Your task to perform on an android device: check android version Image 0: 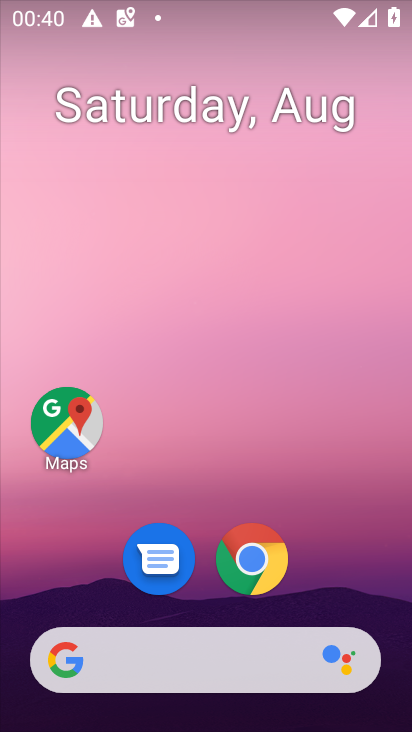
Step 0: drag from (326, 604) to (232, 1)
Your task to perform on an android device: check android version Image 1: 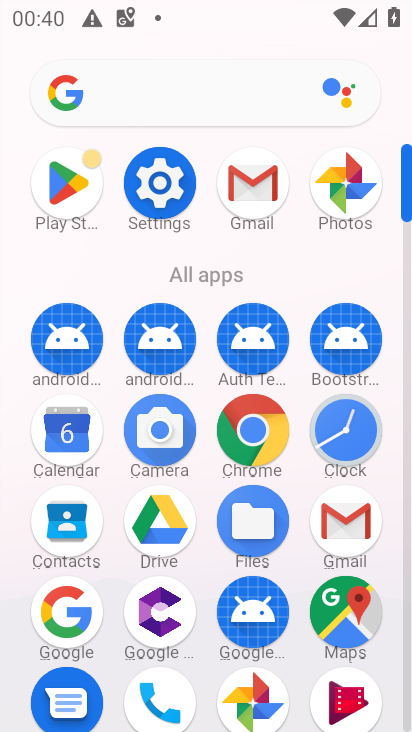
Step 1: click (163, 202)
Your task to perform on an android device: check android version Image 2: 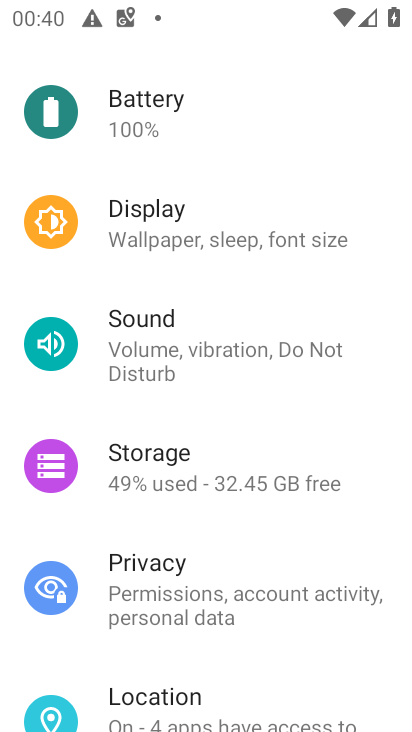
Step 2: drag from (275, 696) to (230, 3)
Your task to perform on an android device: check android version Image 3: 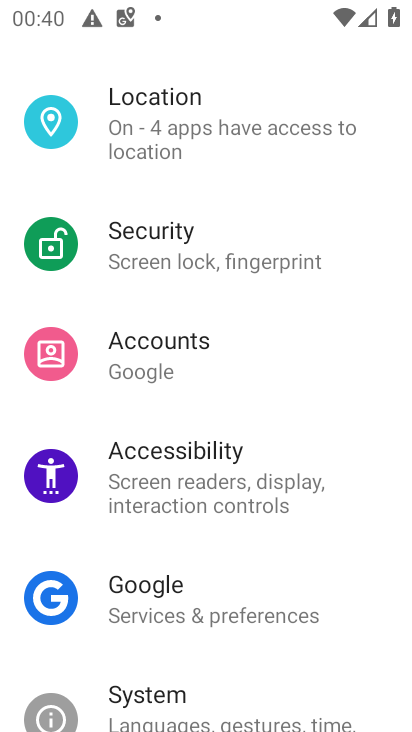
Step 3: drag from (265, 682) to (191, 192)
Your task to perform on an android device: check android version Image 4: 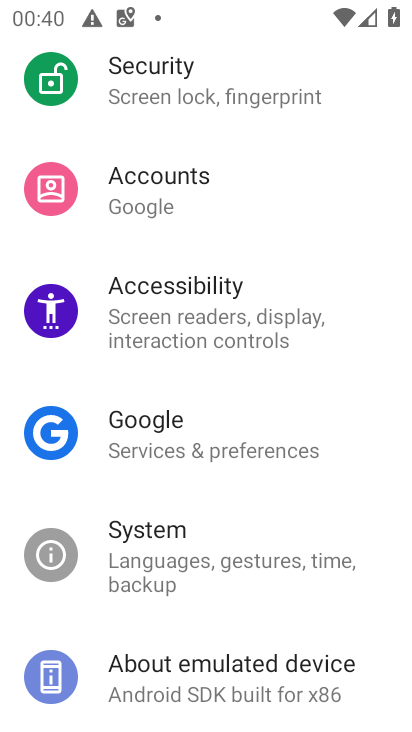
Step 4: click (248, 675)
Your task to perform on an android device: check android version Image 5: 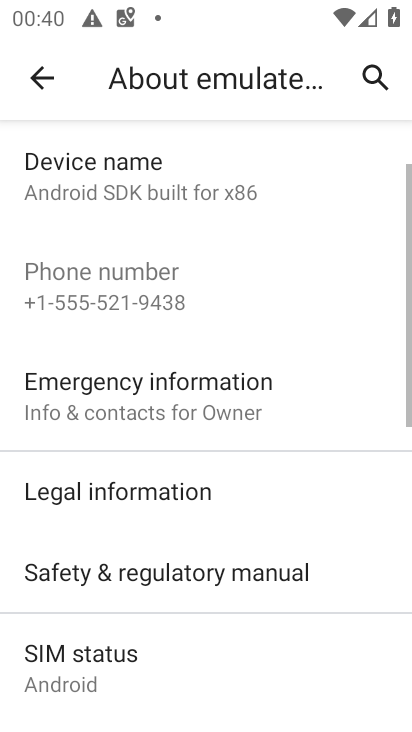
Step 5: drag from (248, 675) to (236, 77)
Your task to perform on an android device: check android version Image 6: 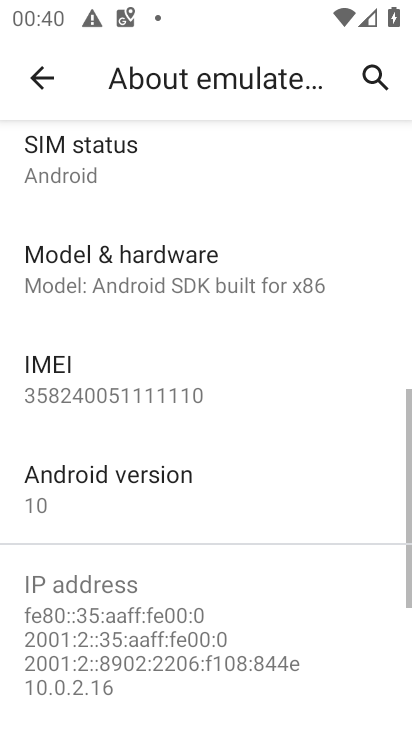
Step 6: click (193, 513)
Your task to perform on an android device: check android version Image 7: 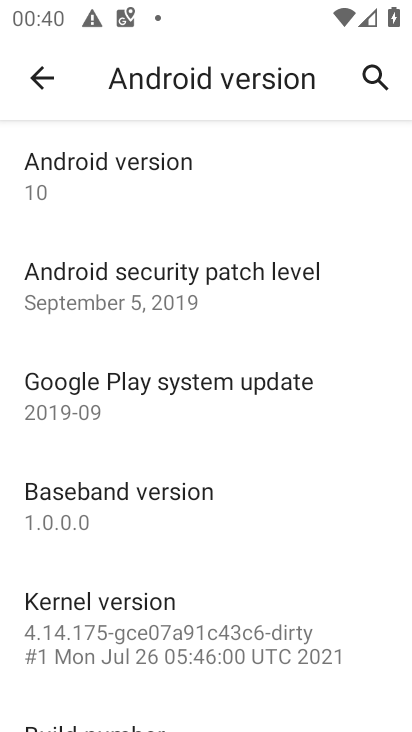
Step 7: task complete